Your task to perform on an android device: Go to CNN.com Image 0: 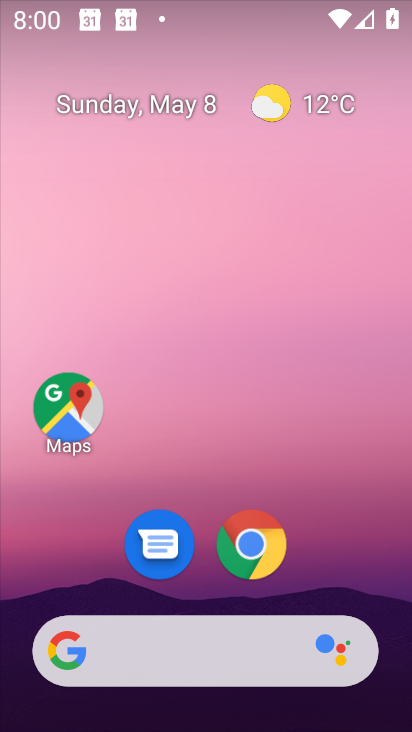
Step 0: click (258, 548)
Your task to perform on an android device: Go to CNN.com Image 1: 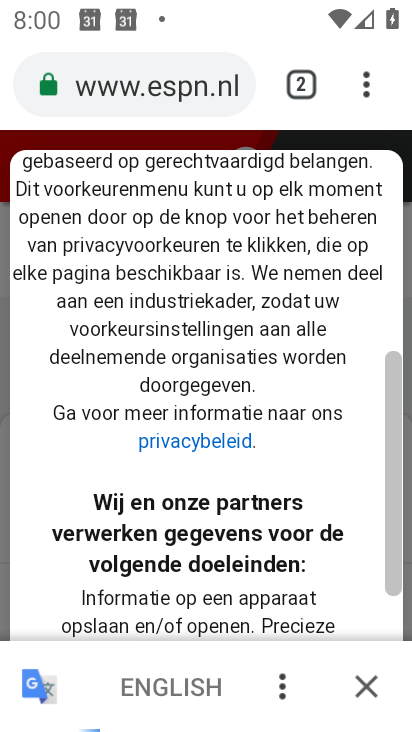
Step 1: click (371, 82)
Your task to perform on an android device: Go to CNN.com Image 2: 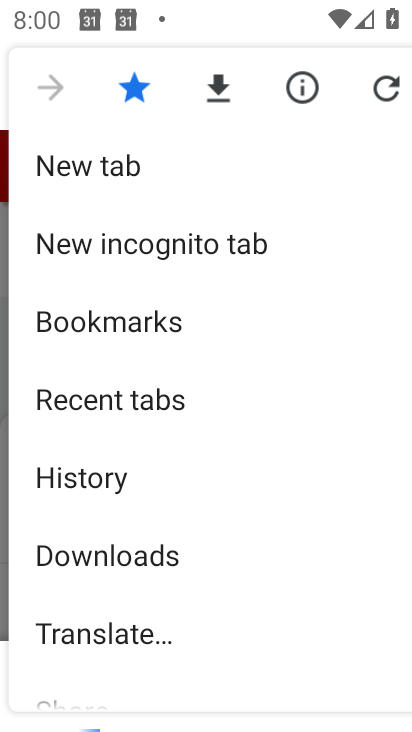
Step 2: click (102, 162)
Your task to perform on an android device: Go to CNN.com Image 3: 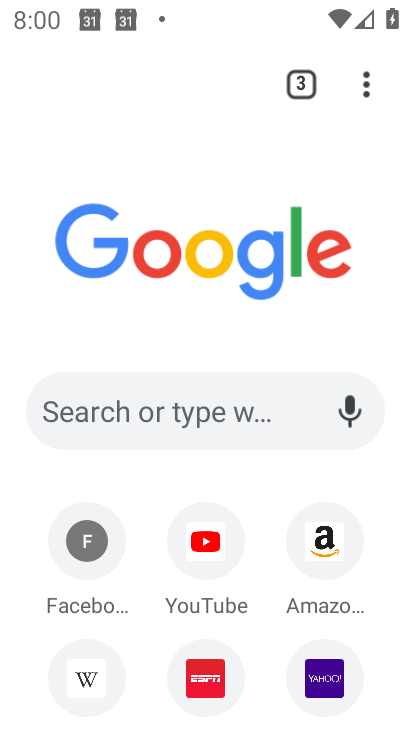
Step 3: click (180, 404)
Your task to perform on an android device: Go to CNN.com Image 4: 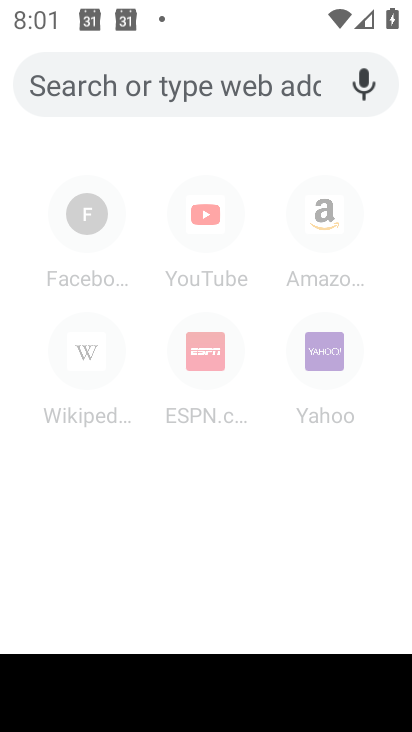
Step 4: type "cnn.com"
Your task to perform on an android device: Go to CNN.com Image 5: 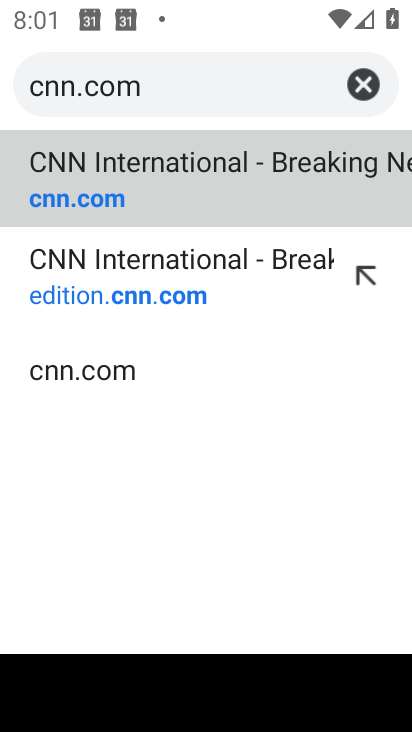
Step 5: click (150, 183)
Your task to perform on an android device: Go to CNN.com Image 6: 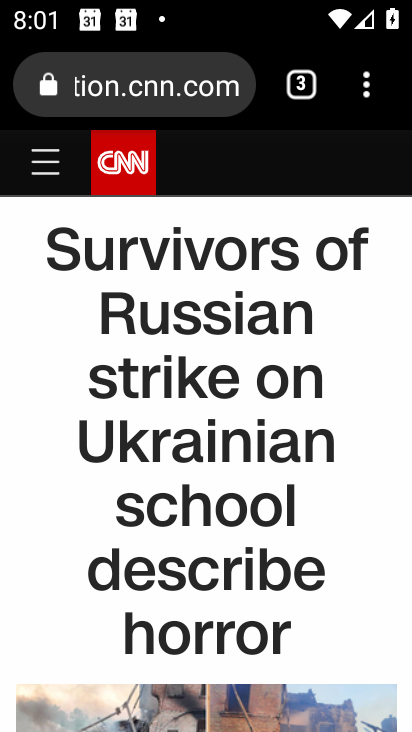
Step 6: task complete